Your task to perform on an android device: see sites visited before in the chrome app Image 0: 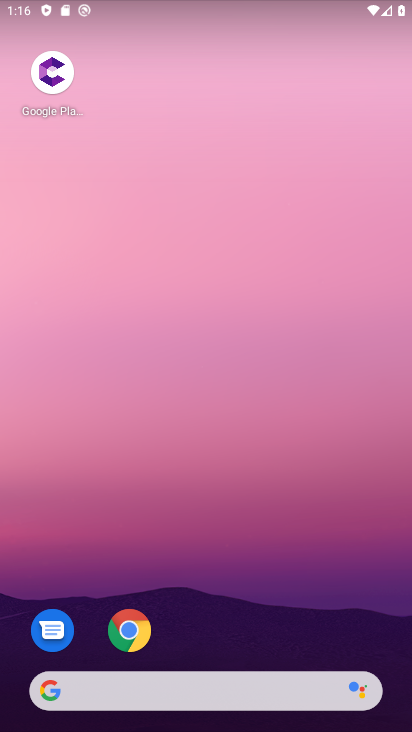
Step 0: drag from (244, 649) to (180, 247)
Your task to perform on an android device: see sites visited before in the chrome app Image 1: 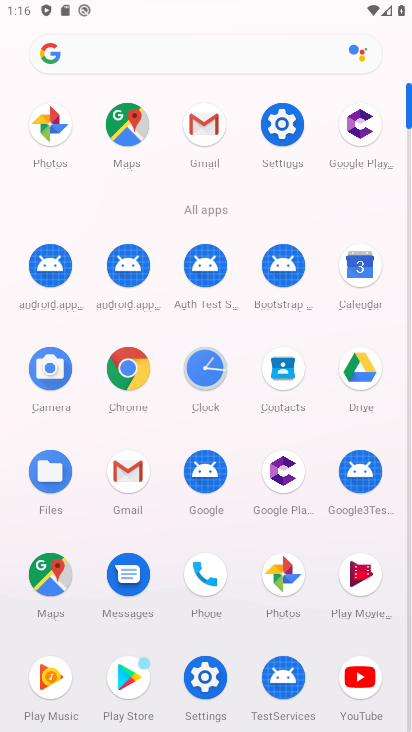
Step 1: click (127, 367)
Your task to perform on an android device: see sites visited before in the chrome app Image 2: 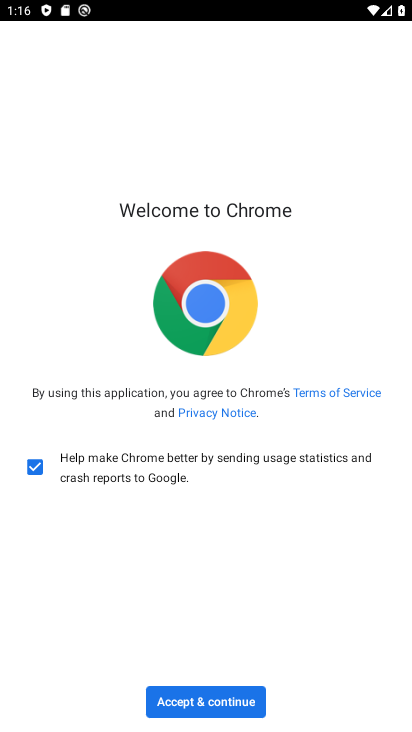
Step 2: click (198, 694)
Your task to perform on an android device: see sites visited before in the chrome app Image 3: 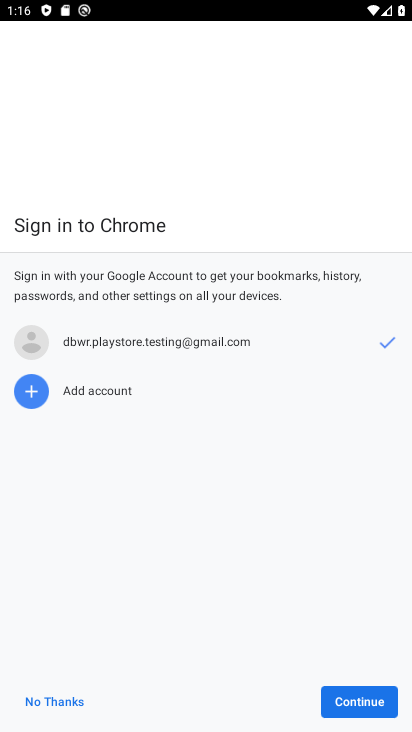
Step 3: click (372, 702)
Your task to perform on an android device: see sites visited before in the chrome app Image 4: 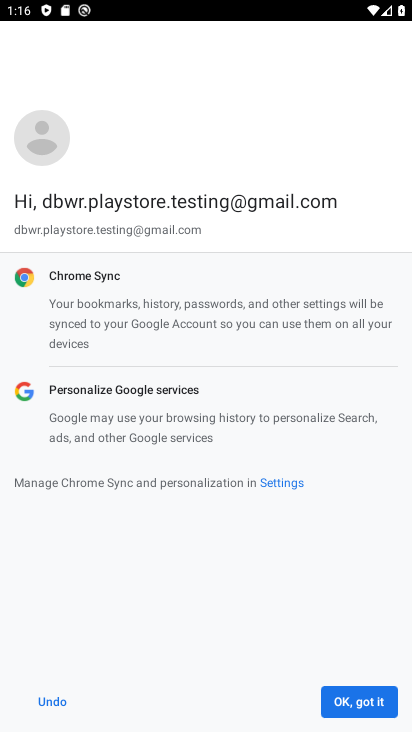
Step 4: click (388, 706)
Your task to perform on an android device: see sites visited before in the chrome app Image 5: 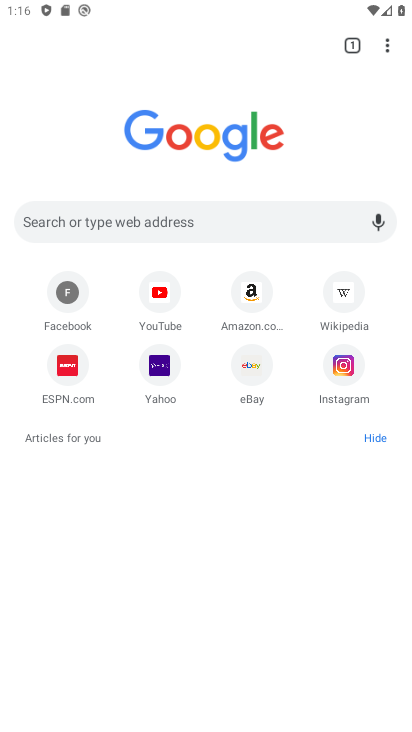
Step 5: click (391, 44)
Your task to perform on an android device: see sites visited before in the chrome app Image 6: 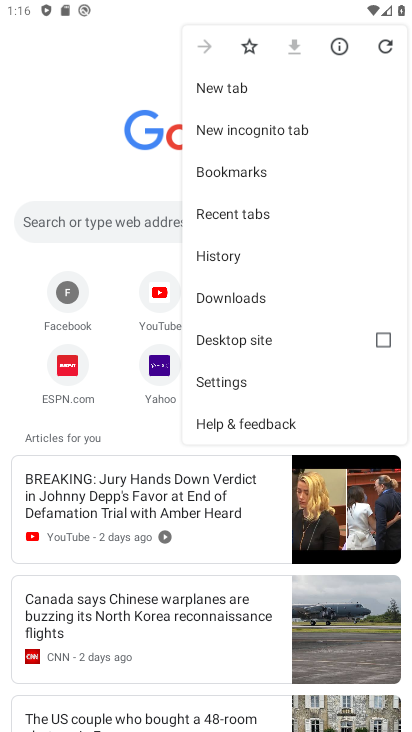
Step 6: click (261, 255)
Your task to perform on an android device: see sites visited before in the chrome app Image 7: 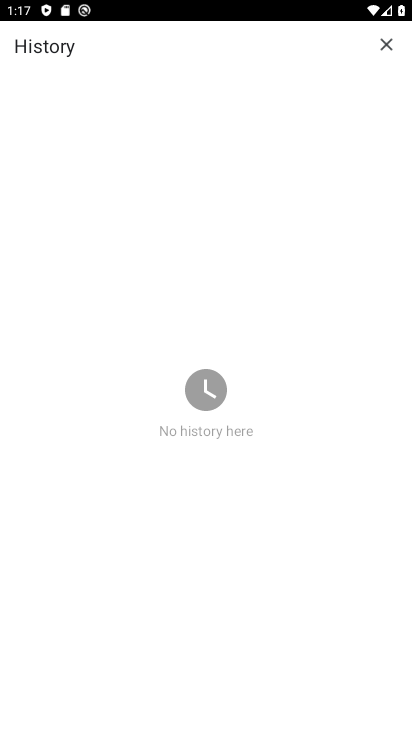
Step 7: task complete